Your task to perform on an android device: Open Youtube and go to the subscriptions tab Image 0: 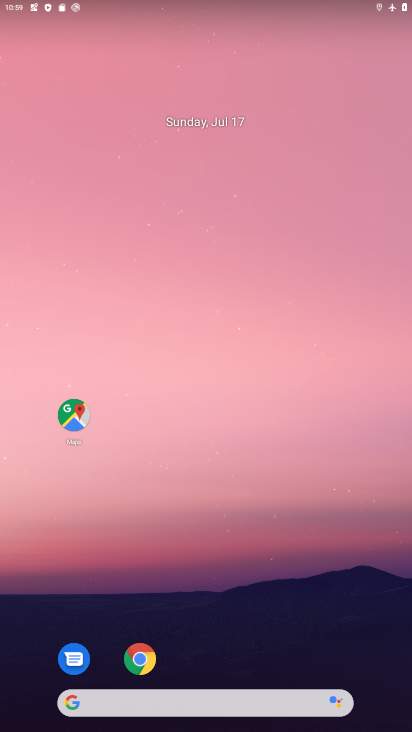
Step 0: drag from (282, 618) to (330, 4)
Your task to perform on an android device: Open Youtube and go to the subscriptions tab Image 1: 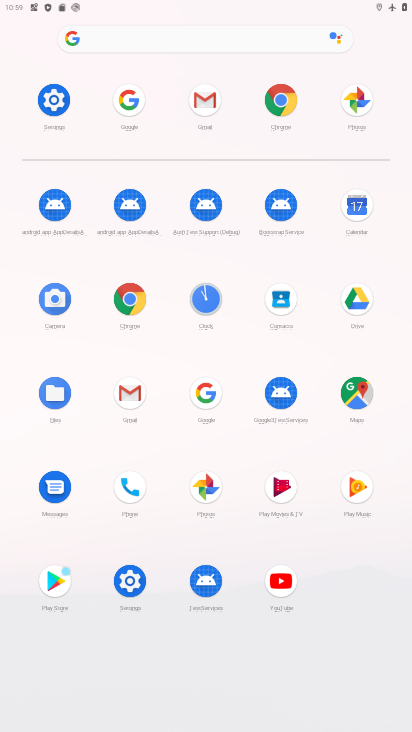
Step 1: click (280, 581)
Your task to perform on an android device: Open Youtube and go to the subscriptions tab Image 2: 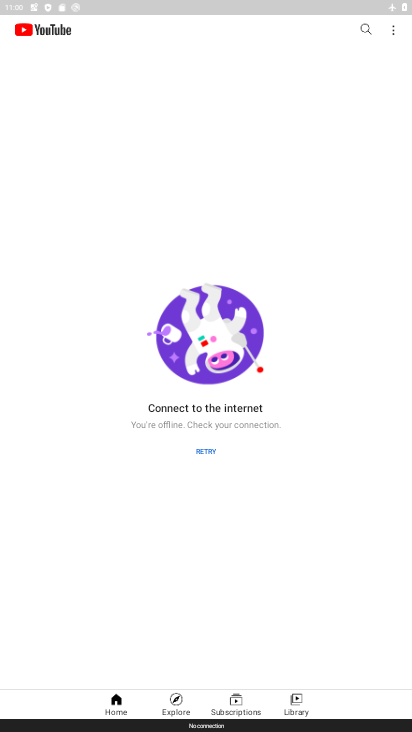
Step 2: task complete